Your task to perform on an android device: Look up the best selling patio furniture on Home Depot Image 0: 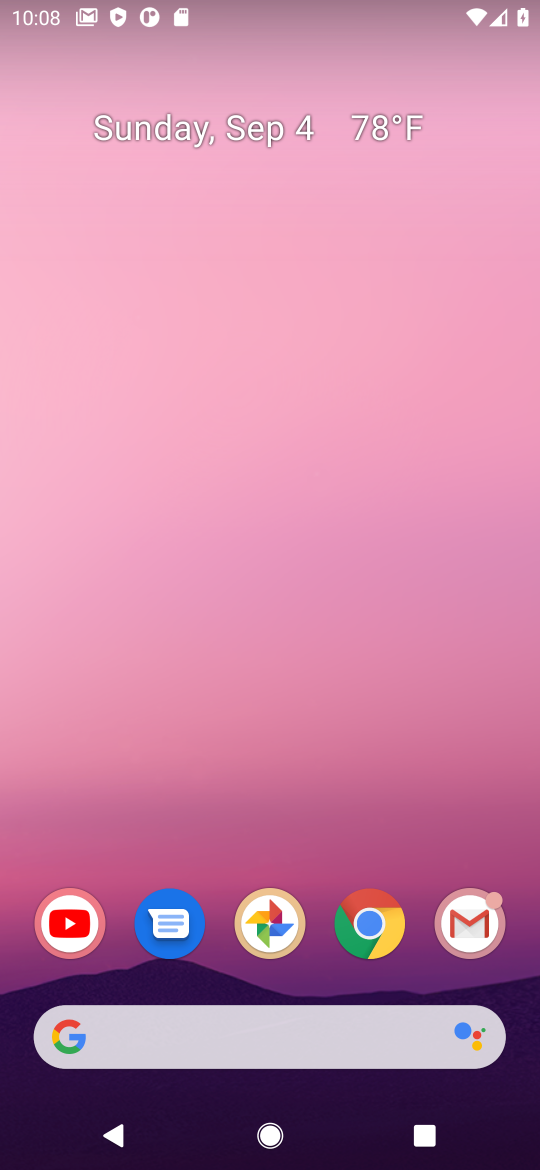
Step 0: click (375, 932)
Your task to perform on an android device: Look up the best selling patio furniture on Home Depot Image 1: 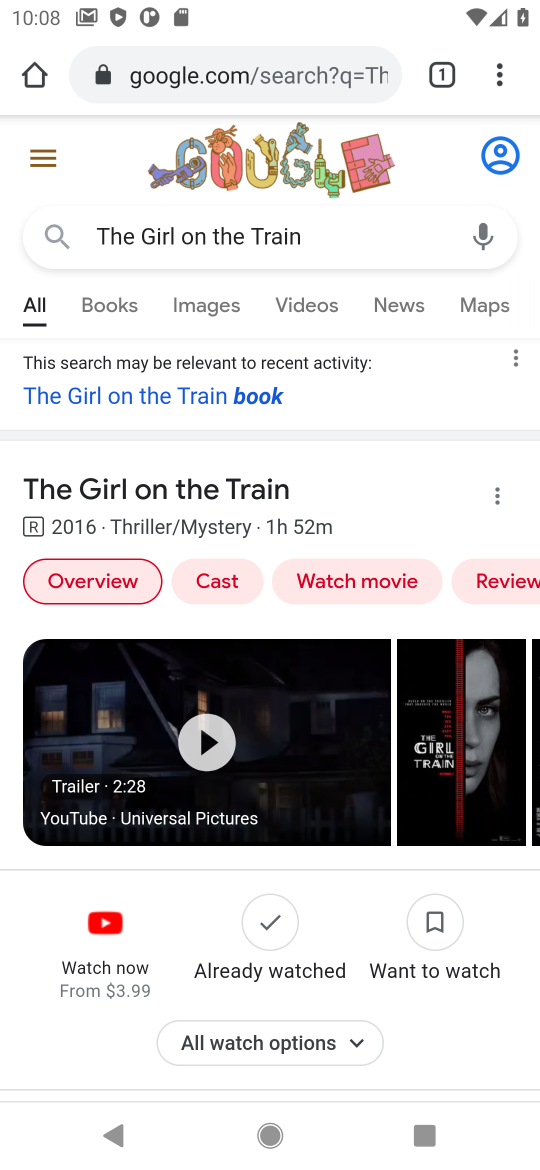
Step 1: click (175, 70)
Your task to perform on an android device: Look up the best selling patio furniture on Home Depot Image 2: 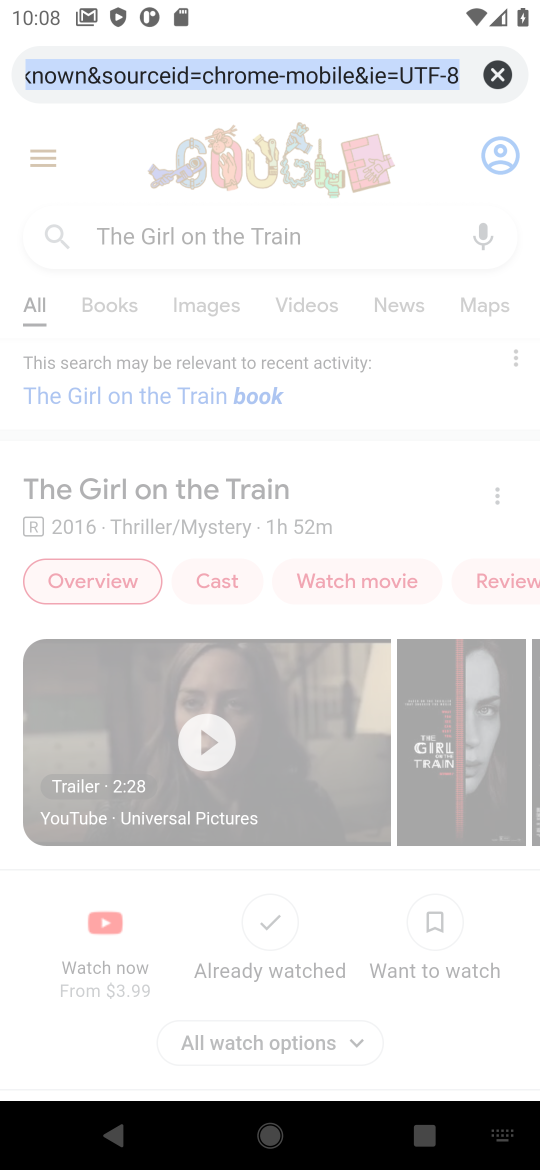
Step 2: click (497, 75)
Your task to perform on an android device: Look up the best selling patio furniture on Home Depot Image 3: 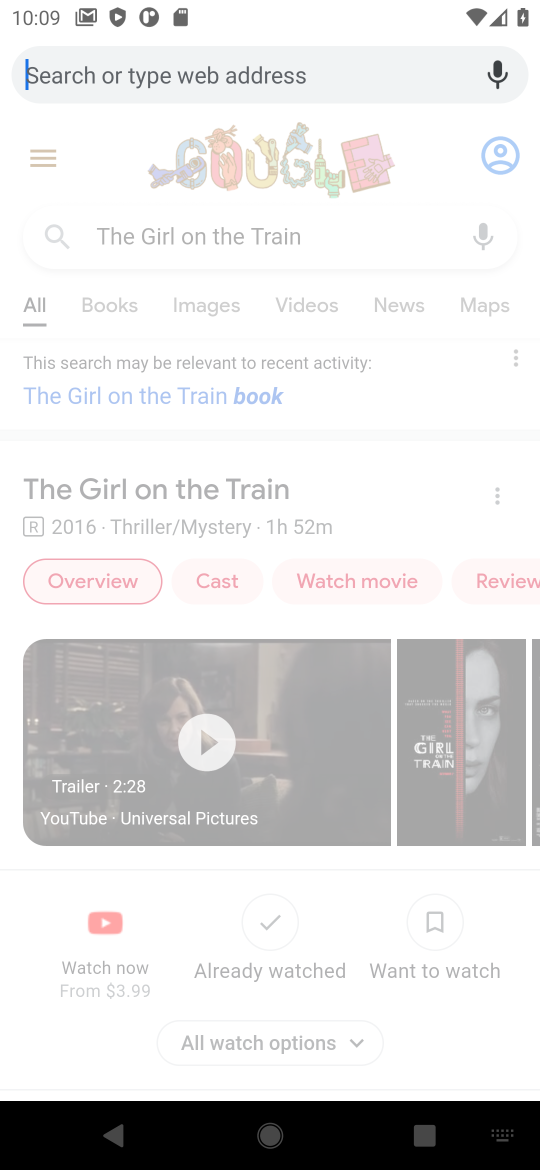
Step 3: type "the best selling patio furniture on Home Depot"
Your task to perform on an android device: Look up the best selling patio furniture on Home Depot Image 4: 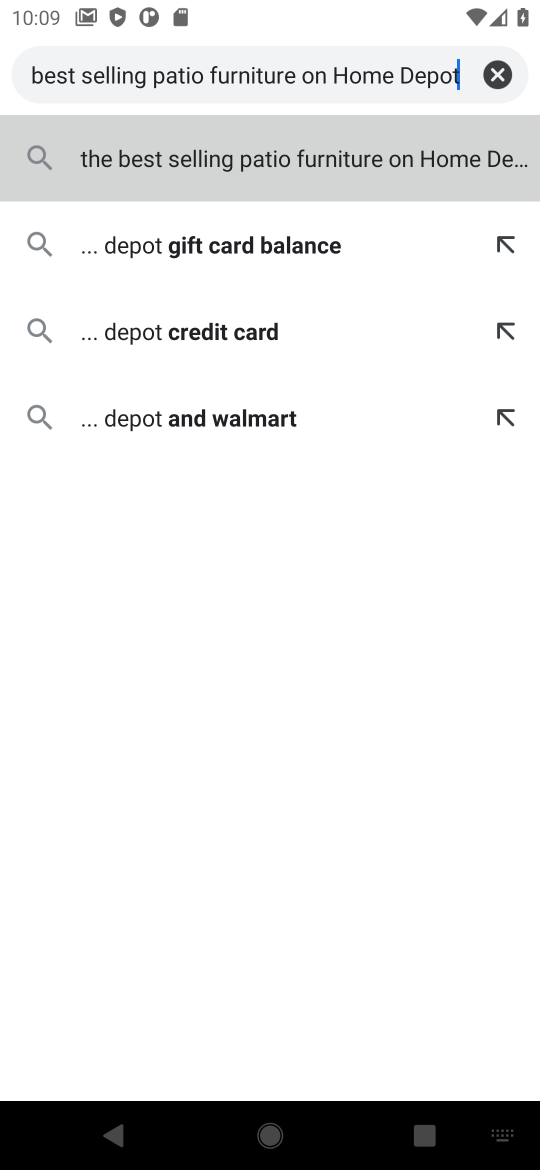
Step 4: click (385, 147)
Your task to perform on an android device: Look up the best selling patio furniture on Home Depot Image 5: 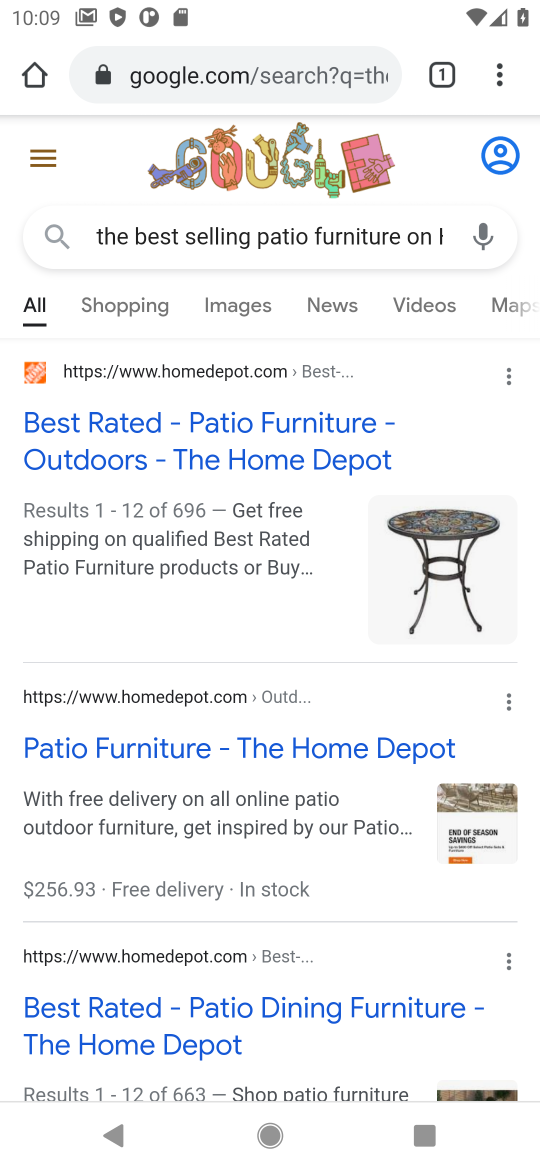
Step 5: task complete